Your task to perform on an android device: move a message to another label in the gmail app Image 0: 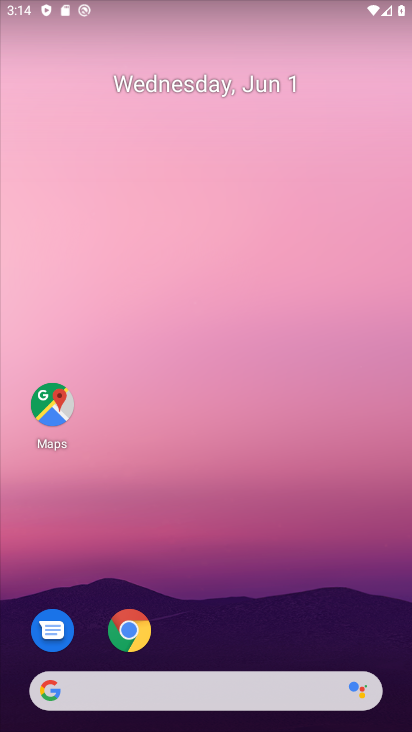
Step 0: press home button
Your task to perform on an android device: move a message to another label in the gmail app Image 1: 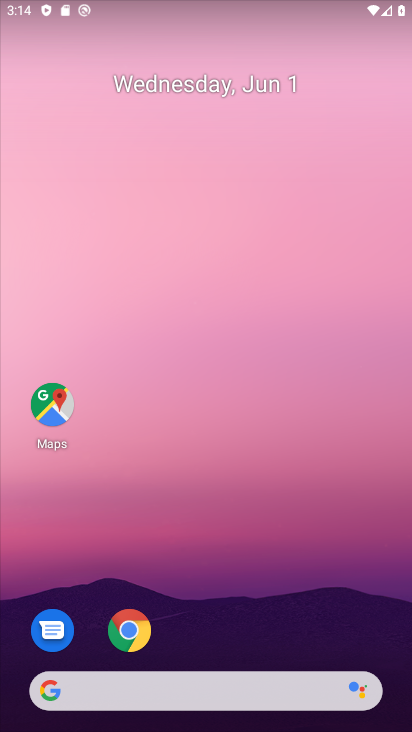
Step 1: drag from (260, 584) to (230, 222)
Your task to perform on an android device: move a message to another label in the gmail app Image 2: 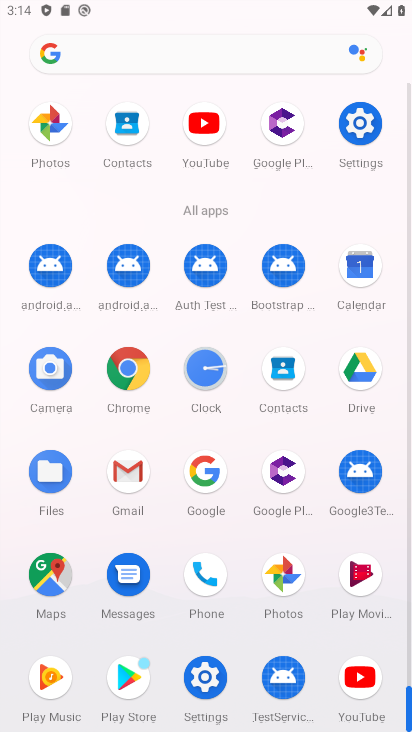
Step 2: click (113, 471)
Your task to perform on an android device: move a message to another label in the gmail app Image 3: 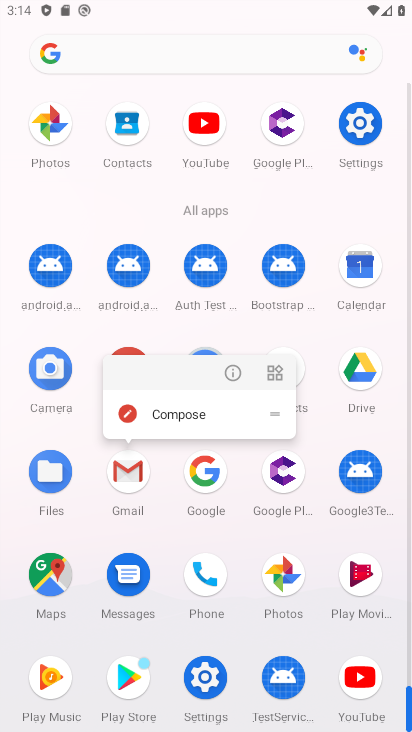
Step 3: click (122, 472)
Your task to perform on an android device: move a message to another label in the gmail app Image 4: 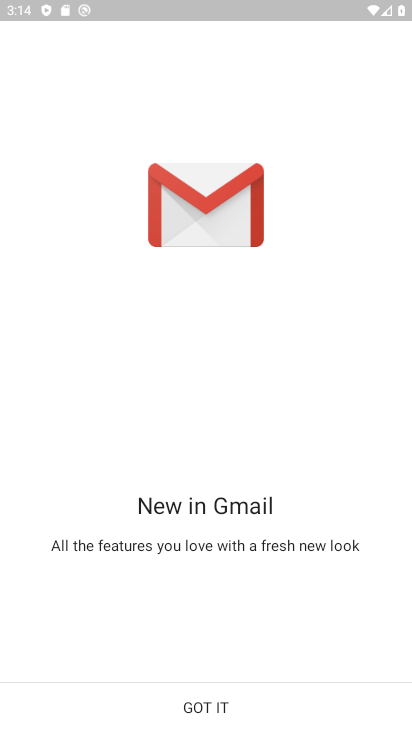
Step 4: click (230, 696)
Your task to perform on an android device: move a message to another label in the gmail app Image 5: 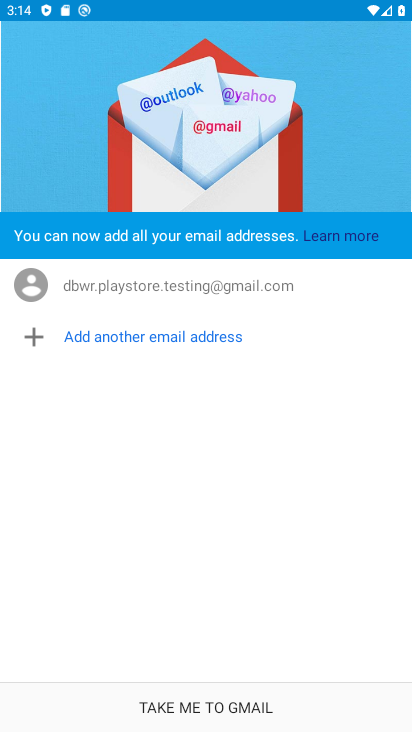
Step 5: click (227, 701)
Your task to perform on an android device: move a message to another label in the gmail app Image 6: 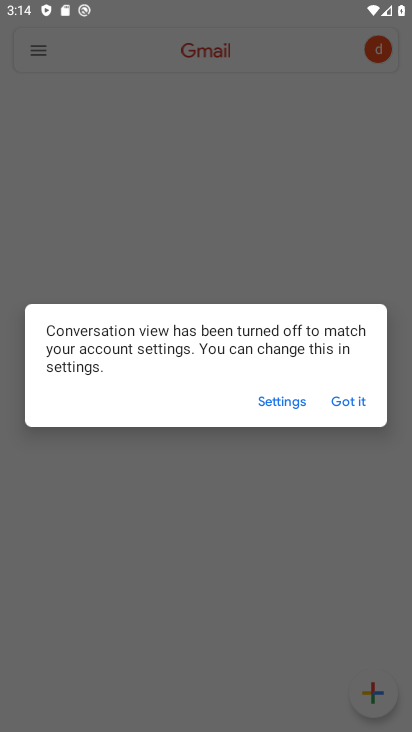
Step 6: click (351, 399)
Your task to perform on an android device: move a message to another label in the gmail app Image 7: 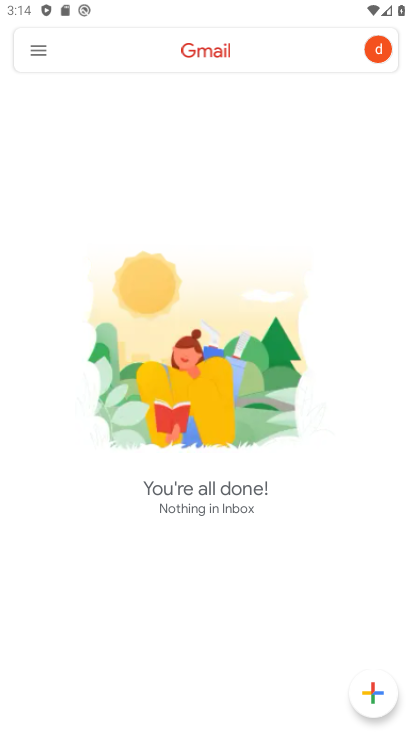
Step 7: click (36, 53)
Your task to perform on an android device: move a message to another label in the gmail app Image 8: 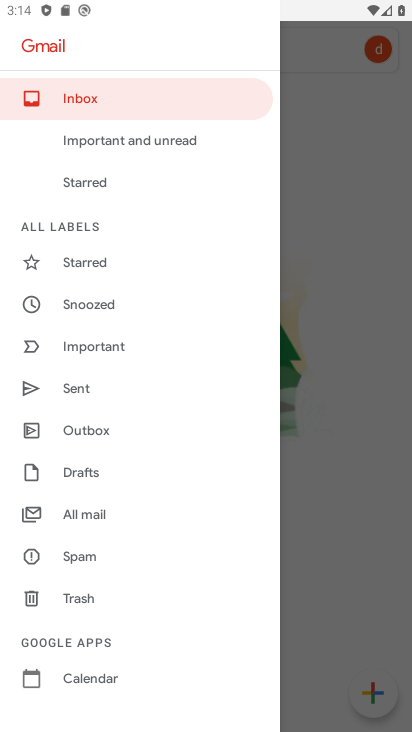
Step 8: click (87, 520)
Your task to perform on an android device: move a message to another label in the gmail app Image 9: 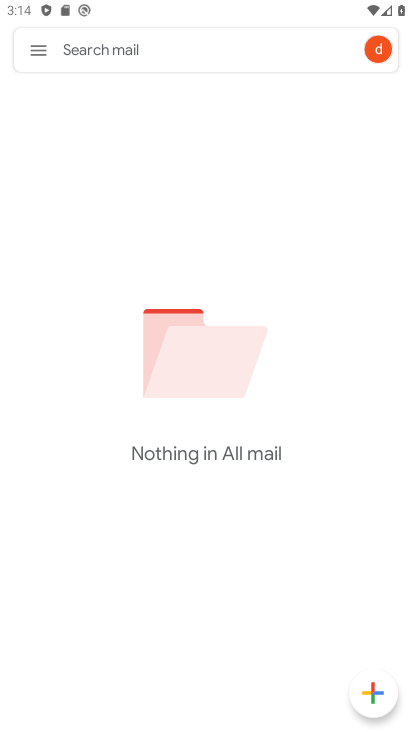
Step 9: task complete